Your task to perform on an android device: empty trash in the gmail app Image 0: 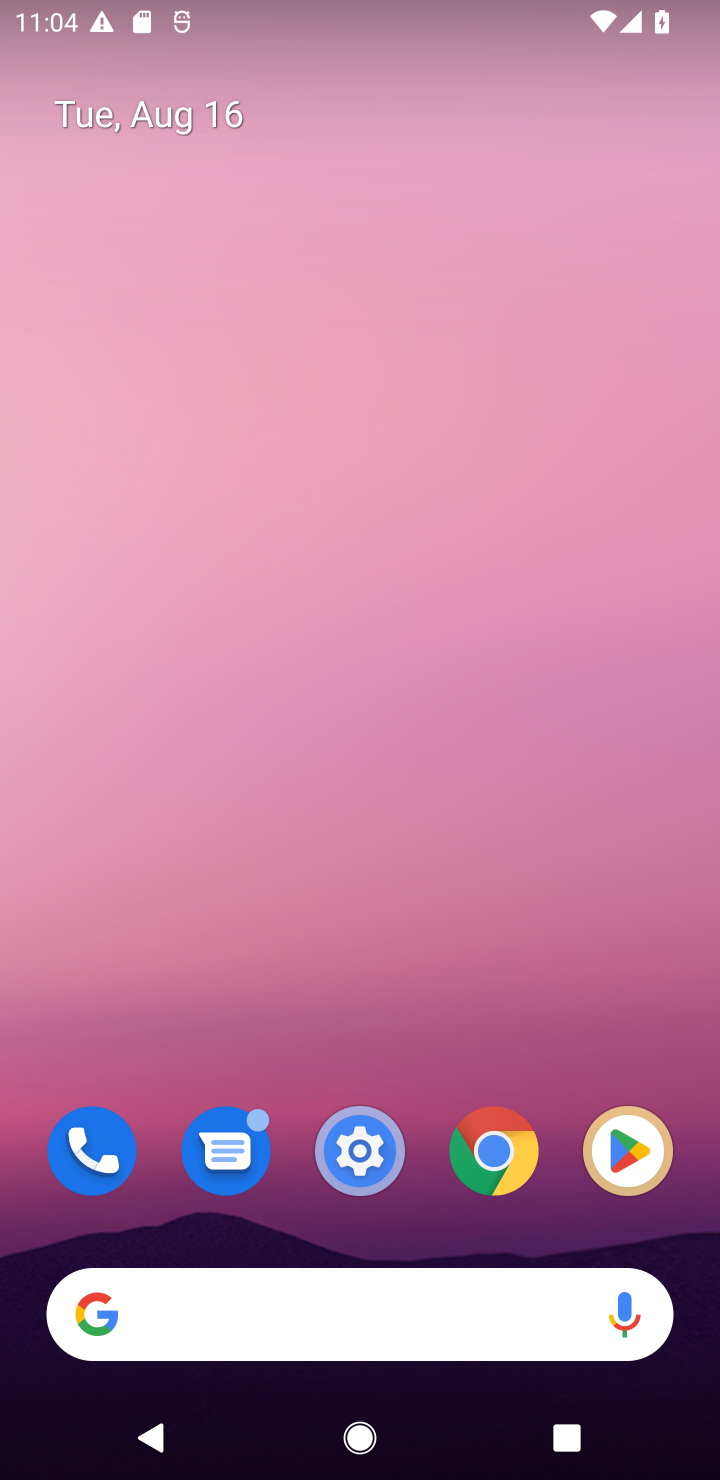
Step 0: press home button
Your task to perform on an android device: empty trash in the gmail app Image 1: 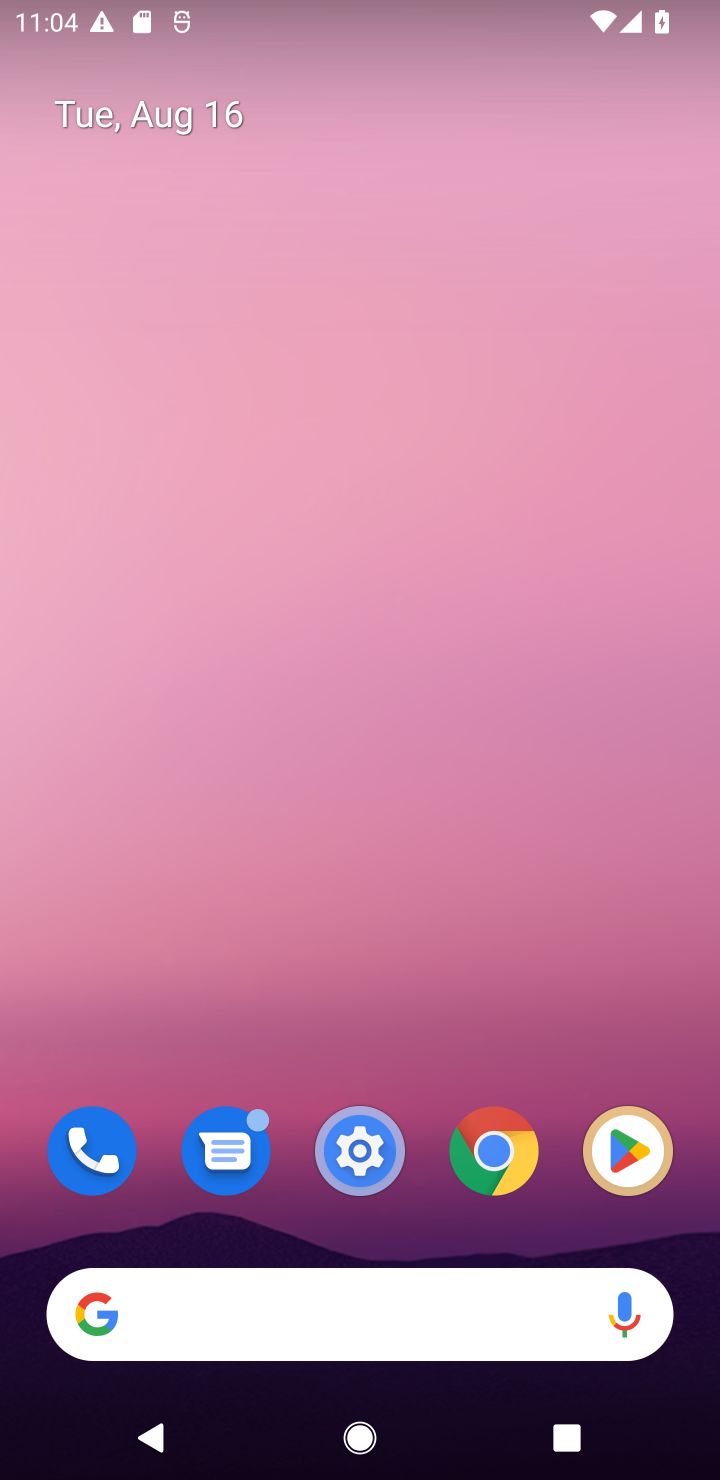
Step 1: drag from (414, 1040) to (433, 208)
Your task to perform on an android device: empty trash in the gmail app Image 2: 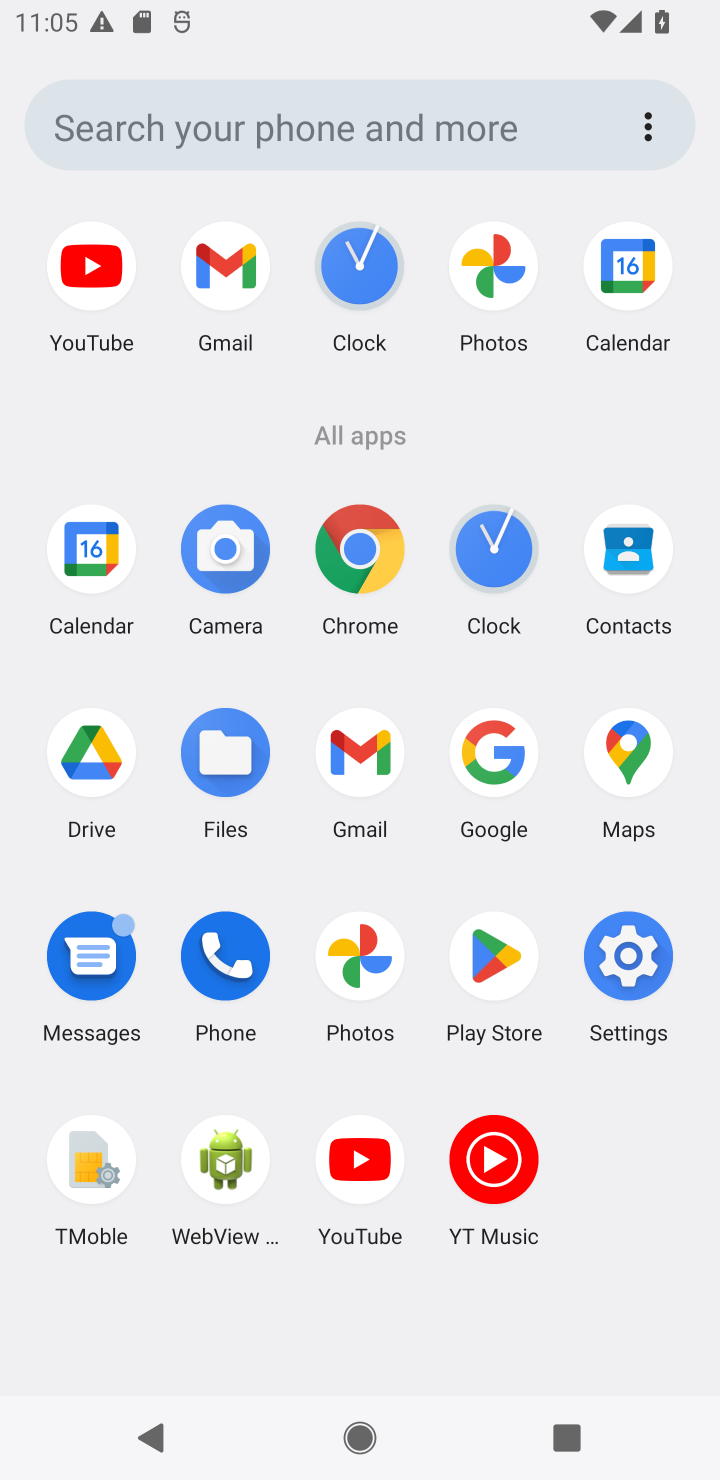
Step 2: click (220, 280)
Your task to perform on an android device: empty trash in the gmail app Image 3: 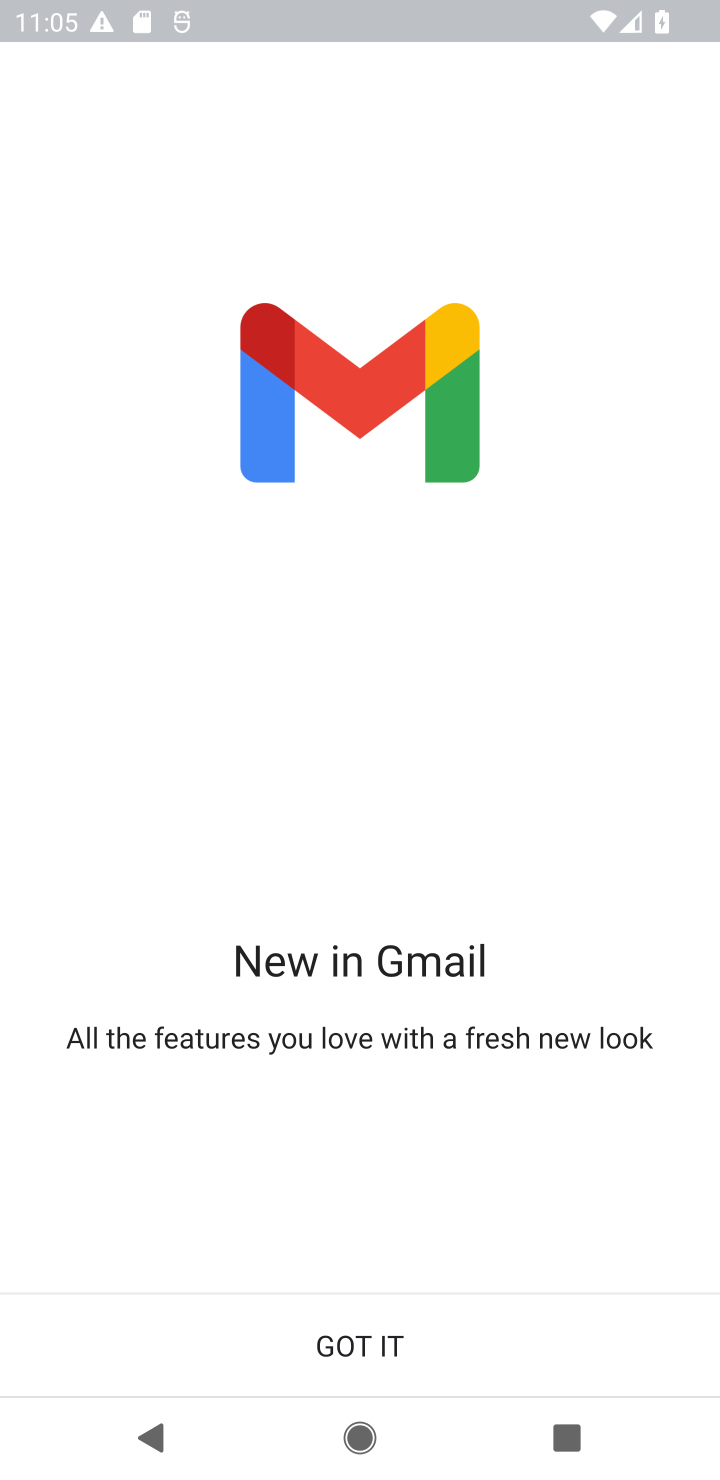
Step 3: click (350, 1345)
Your task to perform on an android device: empty trash in the gmail app Image 4: 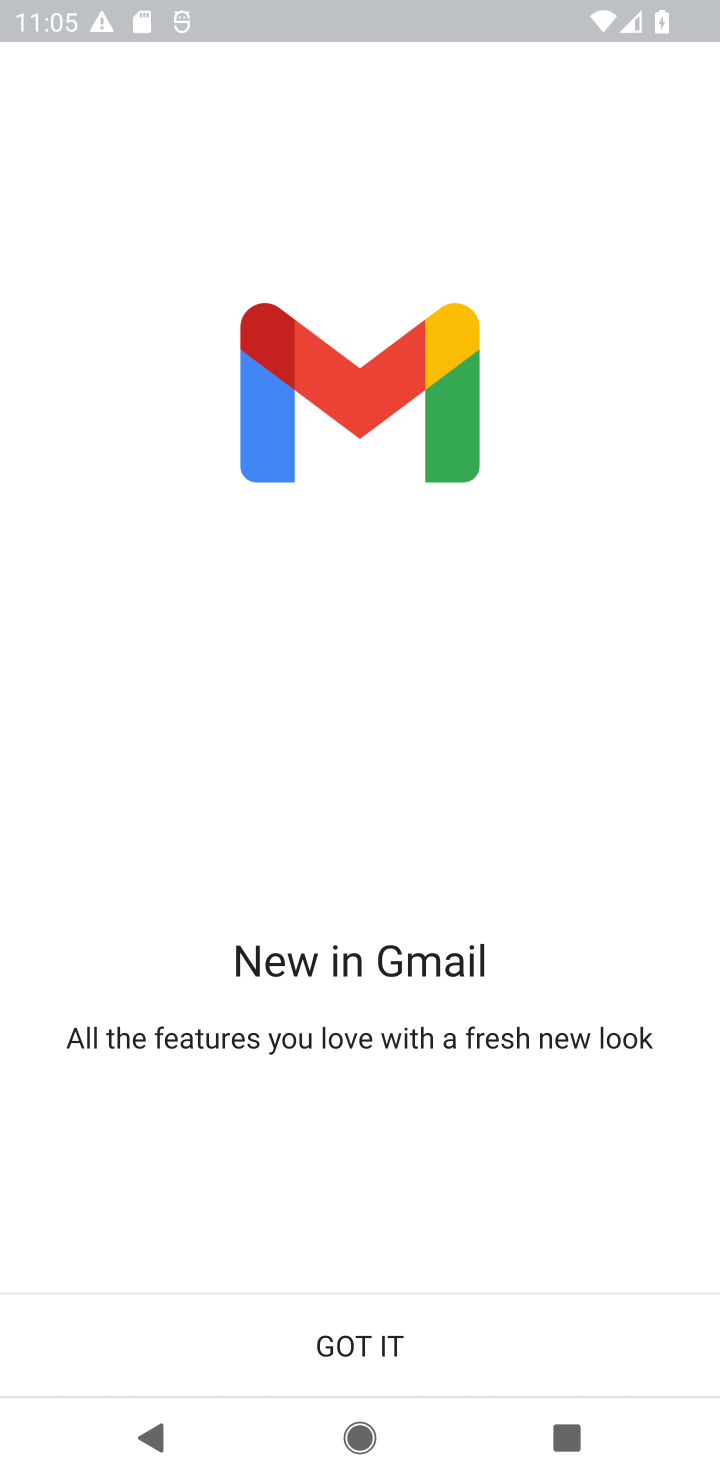
Step 4: click (379, 1335)
Your task to perform on an android device: empty trash in the gmail app Image 5: 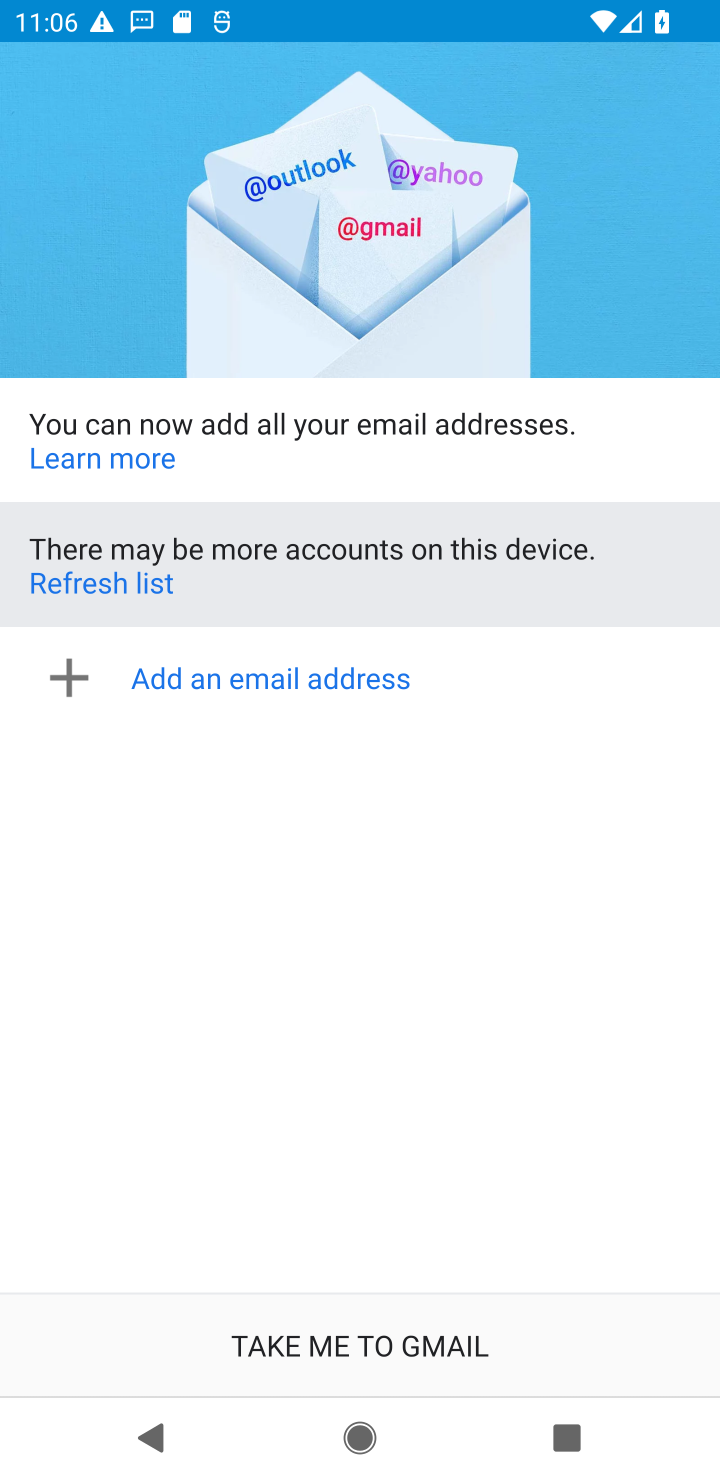
Step 5: click (417, 1336)
Your task to perform on an android device: empty trash in the gmail app Image 6: 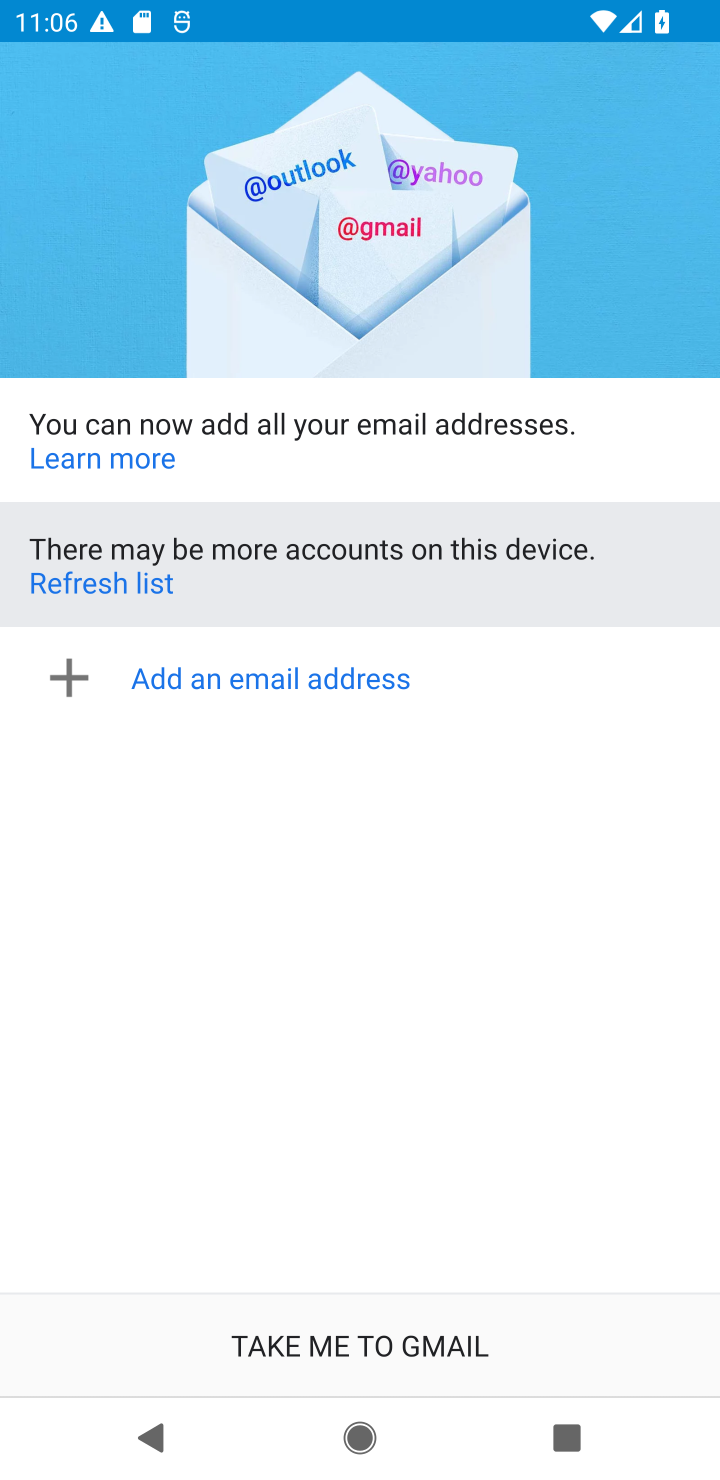
Step 6: press home button
Your task to perform on an android device: empty trash in the gmail app Image 7: 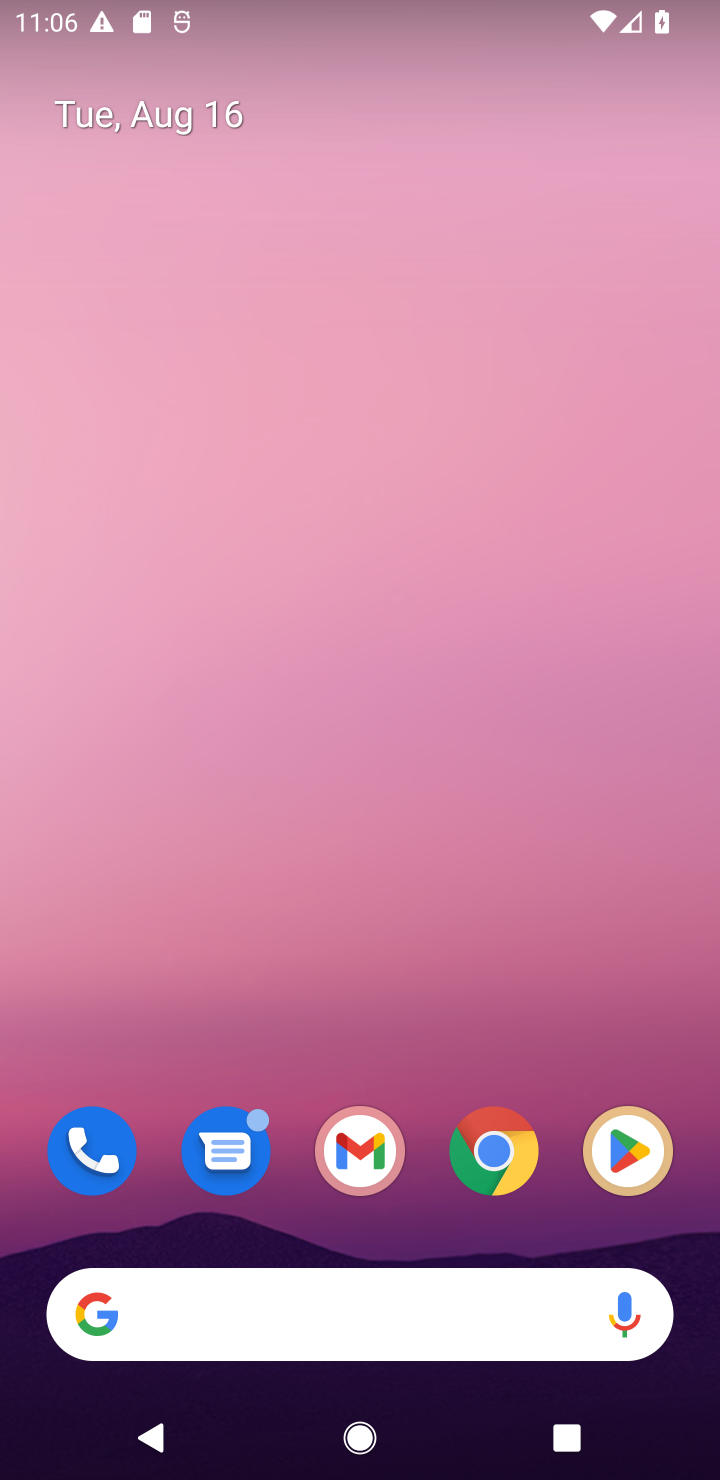
Step 7: drag from (470, 701) to (572, 49)
Your task to perform on an android device: empty trash in the gmail app Image 8: 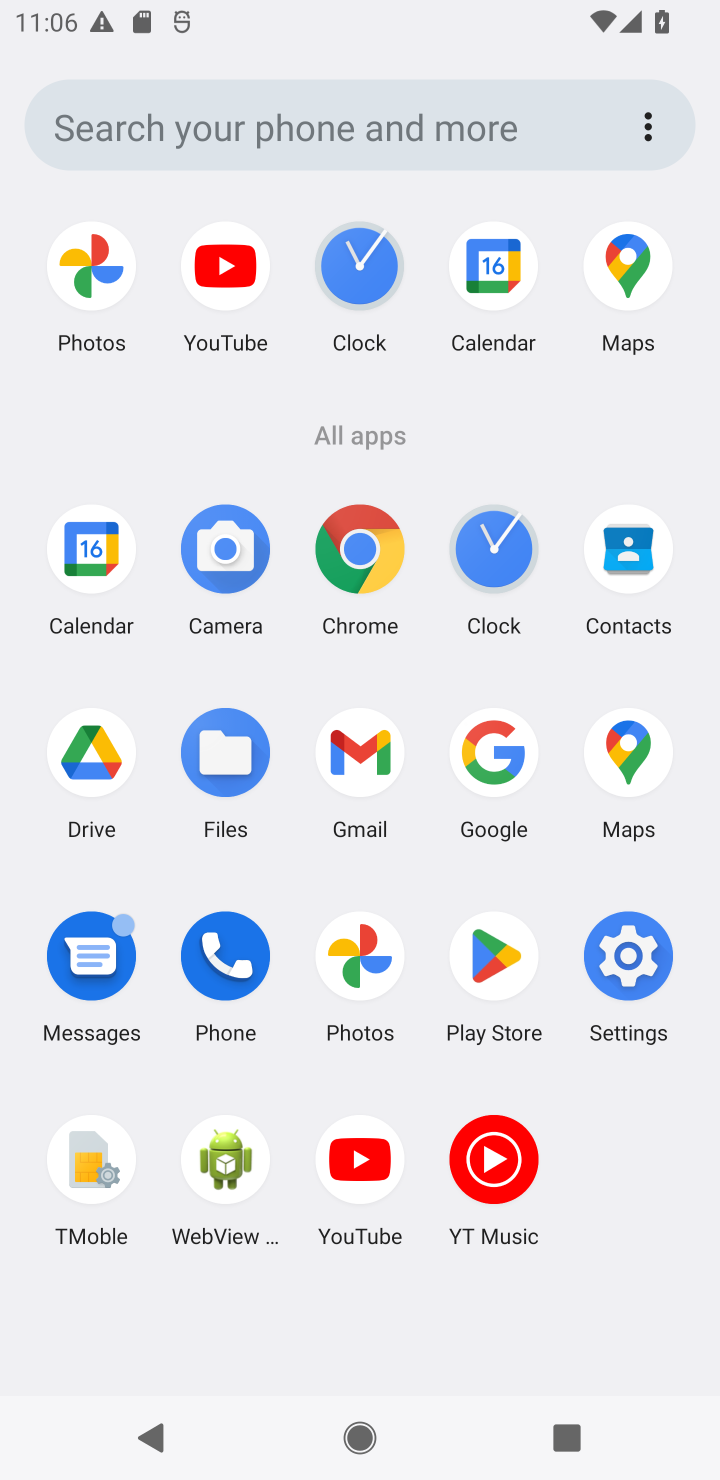
Step 8: click (373, 755)
Your task to perform on an android device: empty trash in the gmail app Image 9: 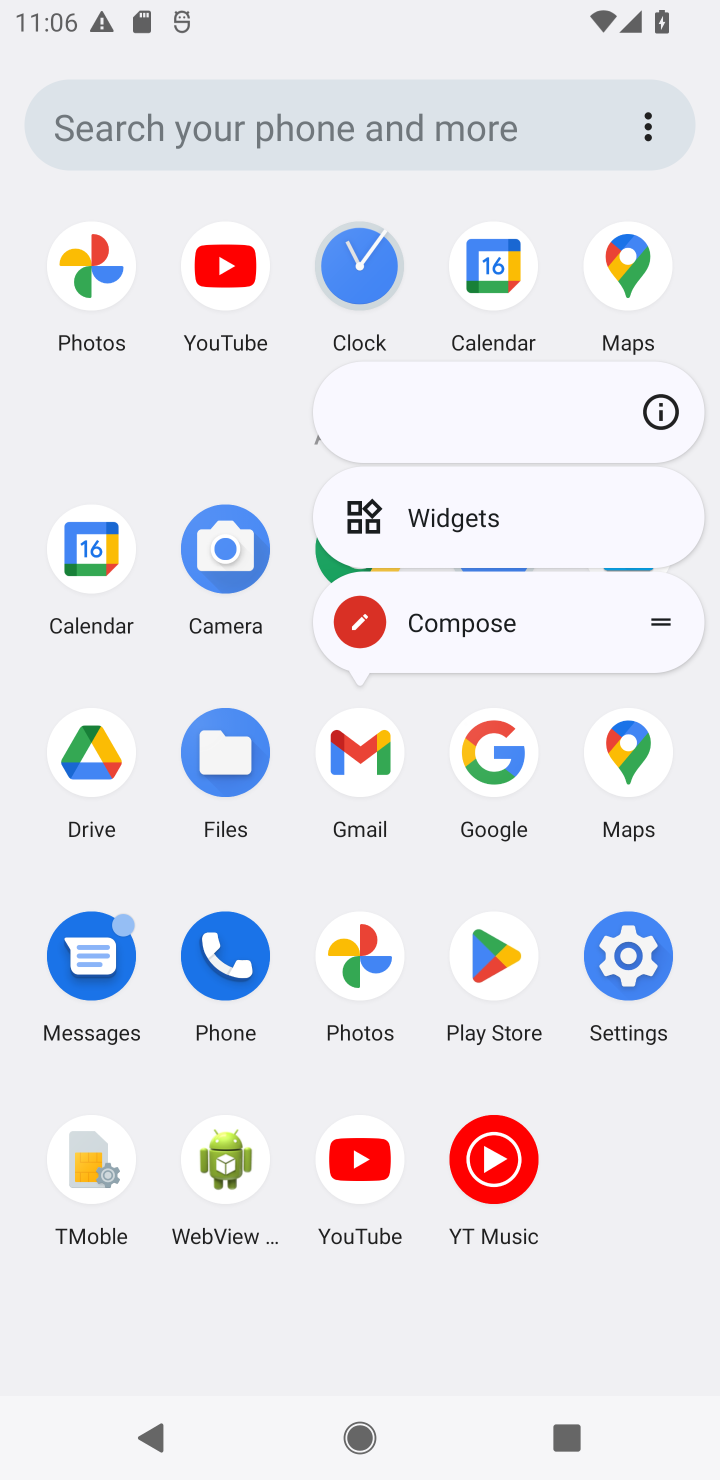
Step 9: click (376, 739)
Your task to perform on an android device: empty trash in the gmail app Image 10: 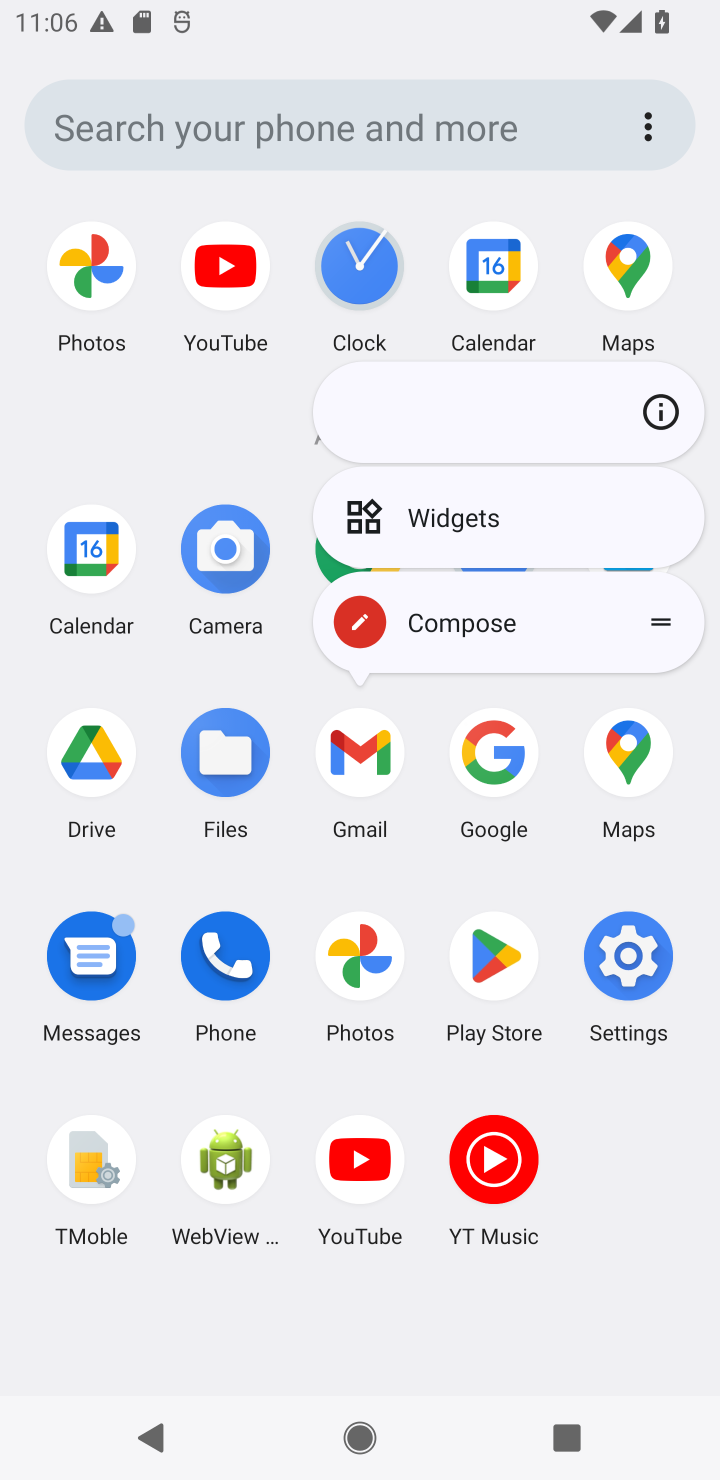
Step 10: click (370, 759)
Your task to perform on an android device: empty trash in the gmail app Image 11: 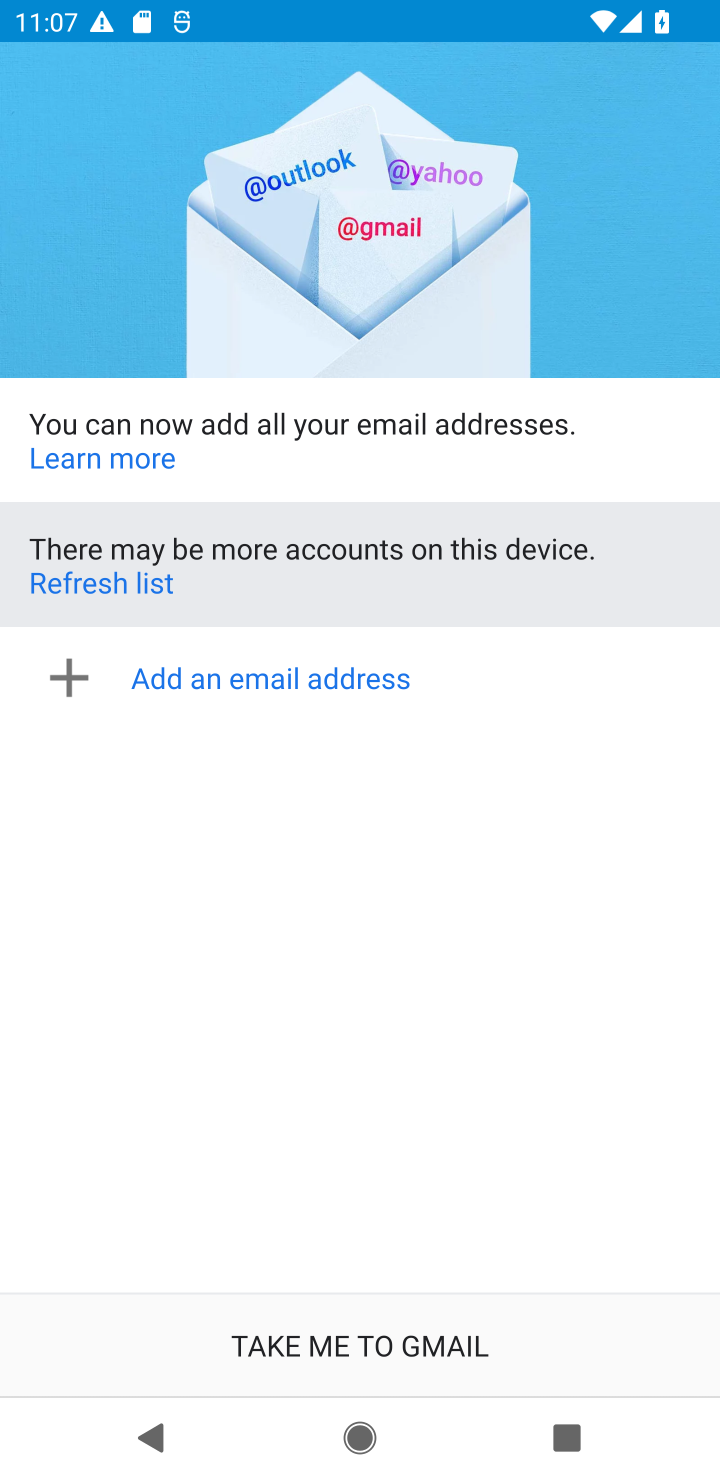
Step 11: click (340, 1336)
Your task to perform on an android device: empty trash in the gmail app Image 12: 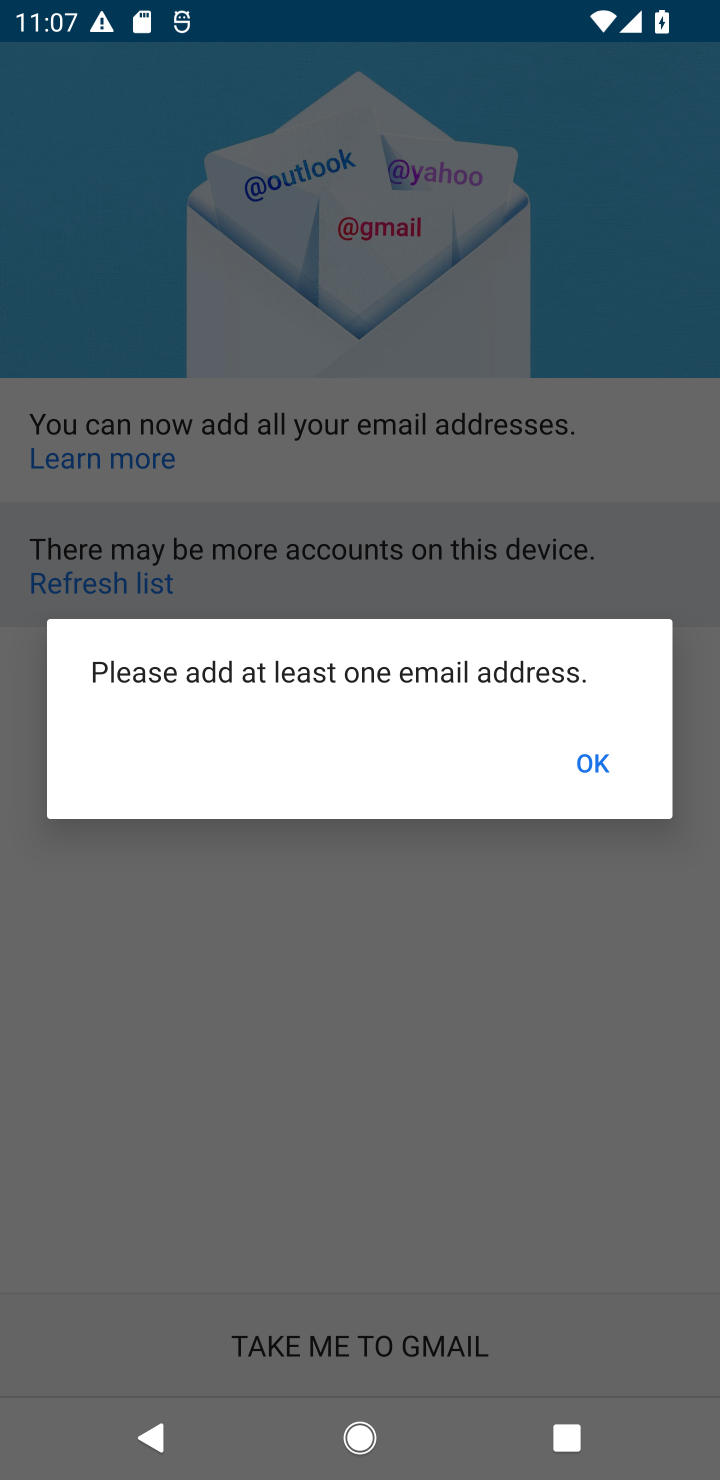
Step 12: click (588, 757)
Your task to perform on an android device: empty trash in the gmail app Image 13: 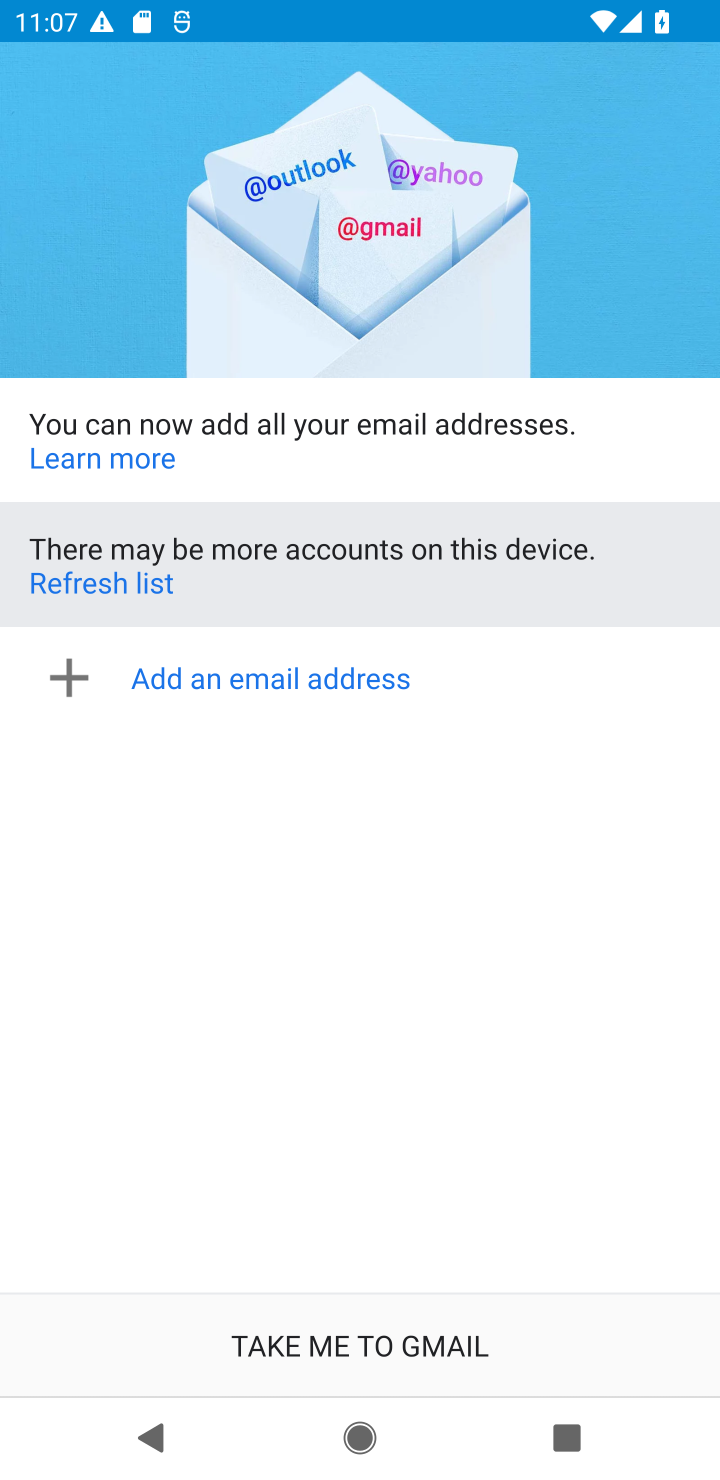
Step 13: task complete